Your task to perform on an android device: change the clock display to show seconds Image 0: 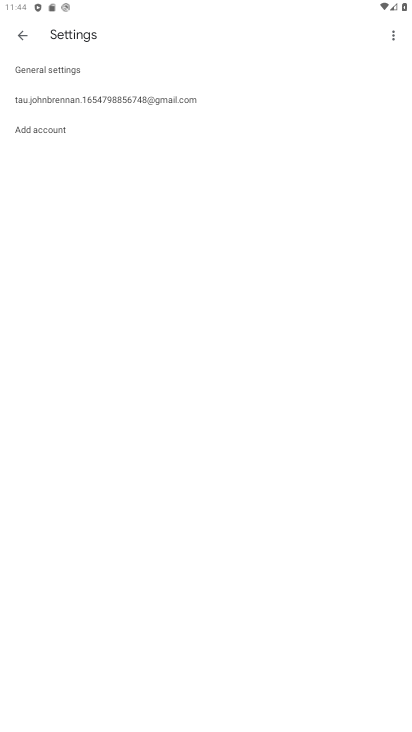
Step 0: press home button
Your task to perform on an android device: change the clock display to show seconds Image 1: 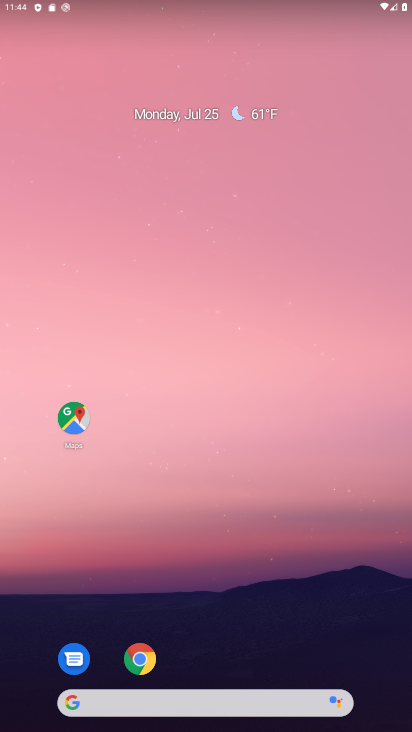
Step 1: drag from (220, 722) to (241, 93)
Your task to perform on an android device: change the clock display to show seconds Image 2: 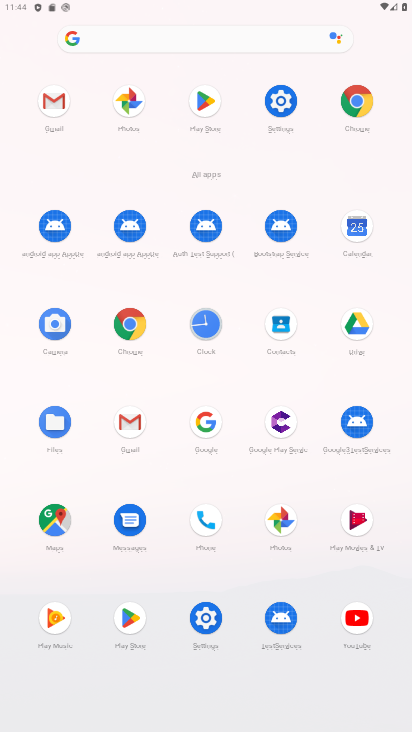
Step 2: click (212, 324)
Your task to perform on an android device: change the clock display to show seconds Image 3: 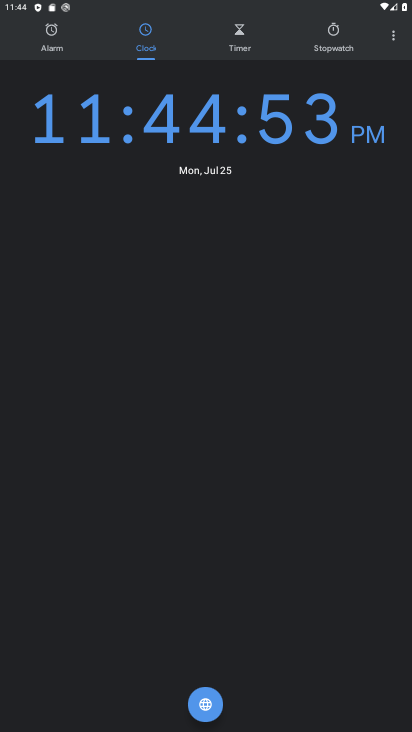
Step 3: click (393, 43)
Your task to perform on an android device: change the clock display to show seconds Image 4: 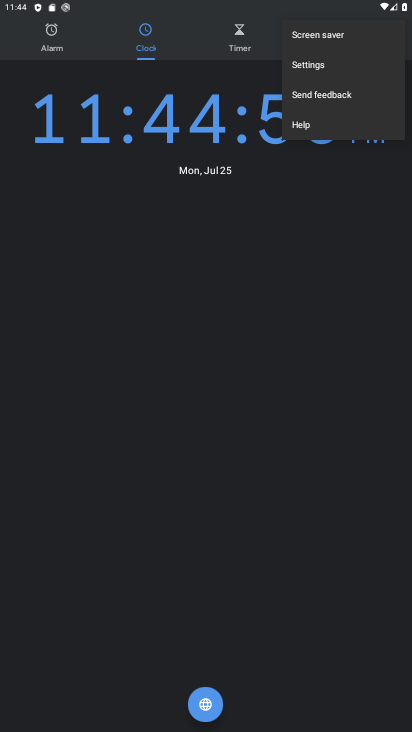
Step 4: click (319, 66)
Your task to perform on an android device: change the clock display to show seconds Image 5: 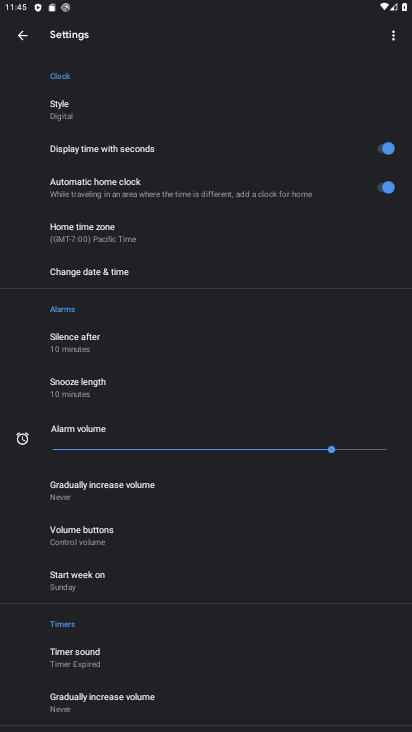
Step 5: task complete